Your task to perform on an android device: change the clock display to digital Image 0: 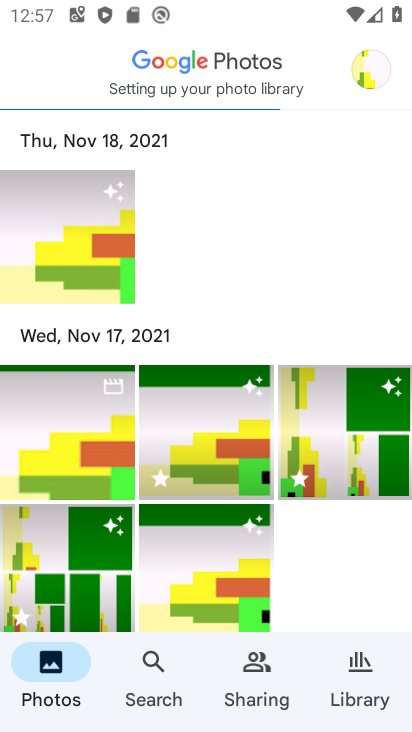
Step 0: press home button
Your task to perform on an android device: change the clock display to digital Image 1: 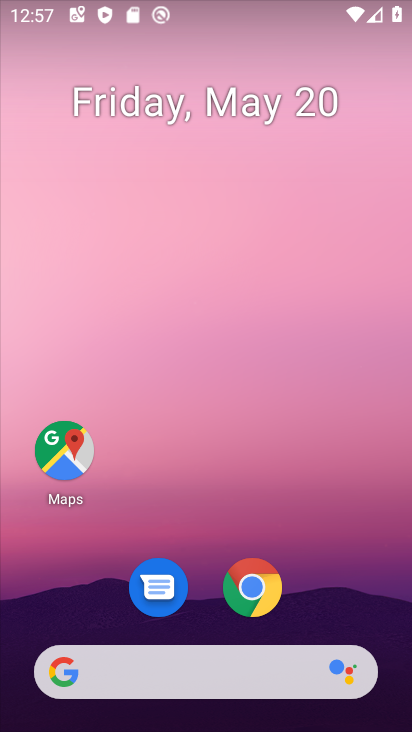
Step 1: drag from (290, 469) to (179, 27)
Your task to perform on an android device: change the clock display to digital Image 2: 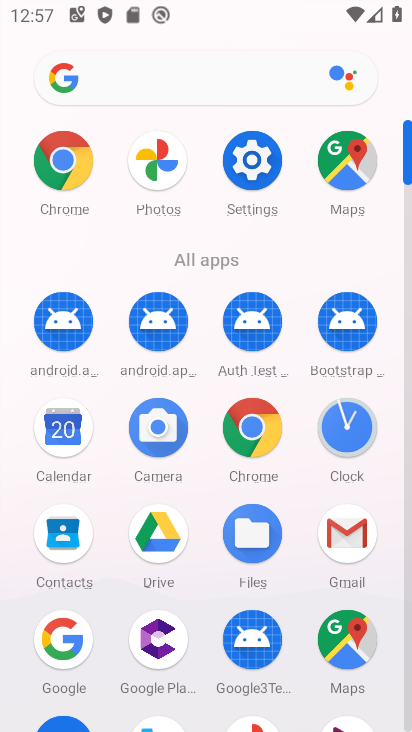
Step 2: click (341, 432)
Your task to perform on an android device: change the clock display to digital Image 3: 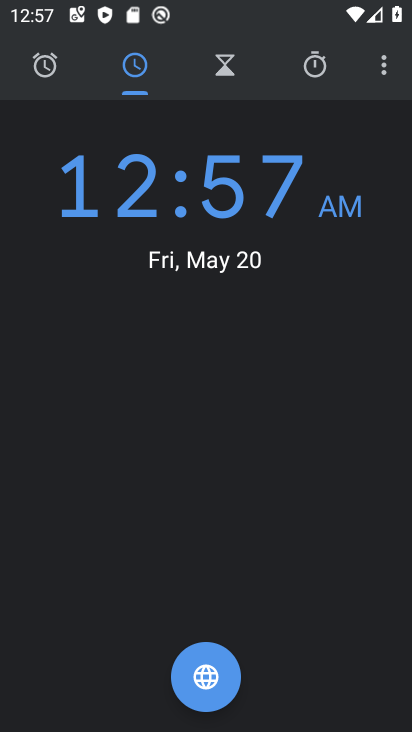
Step 3: click (386, 59)
Your task to perform on an android device: change the clock display to digital Image 4: 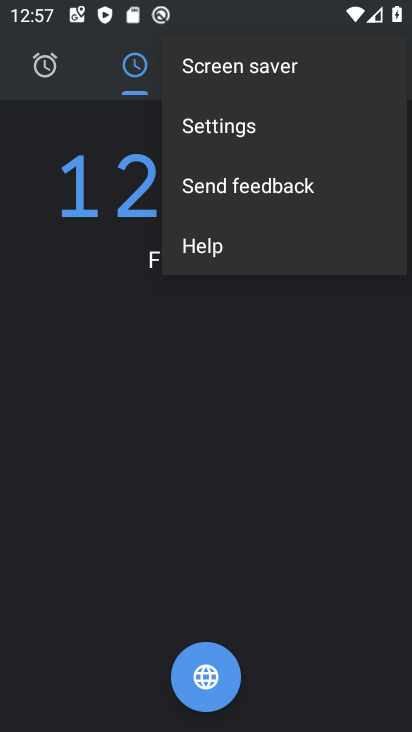
Step 4: click (244, 119)
Your task to perform on an android device: change the clock display to digital Image 5: 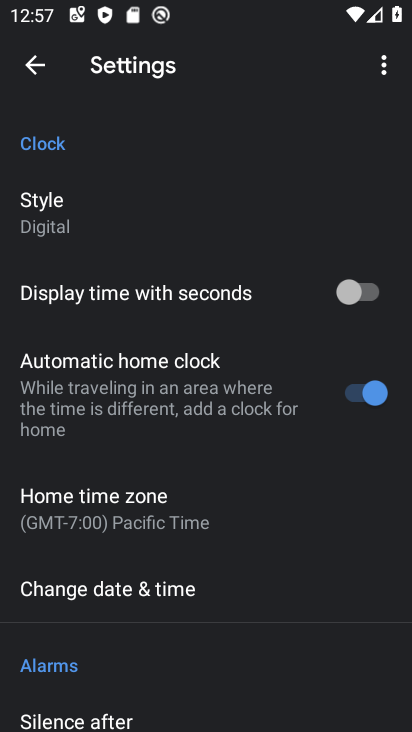
Step 5: click (30, 203)
Your task to perform on an android device: change the clock display to digital Image 6: 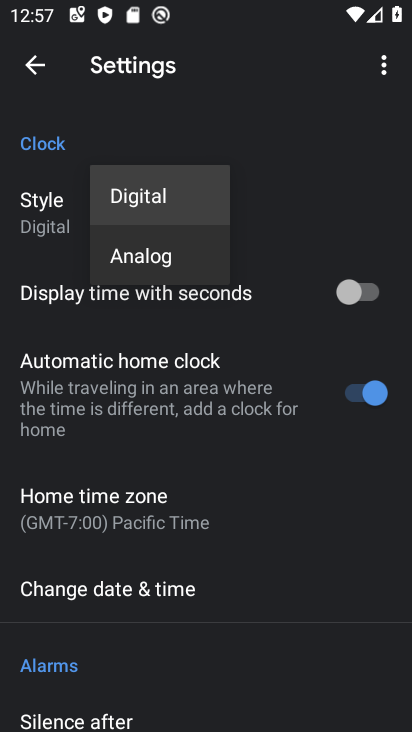
Step 6: click (152, 190)
Your task to perform on an android device: change the clock display to digital Image 7: 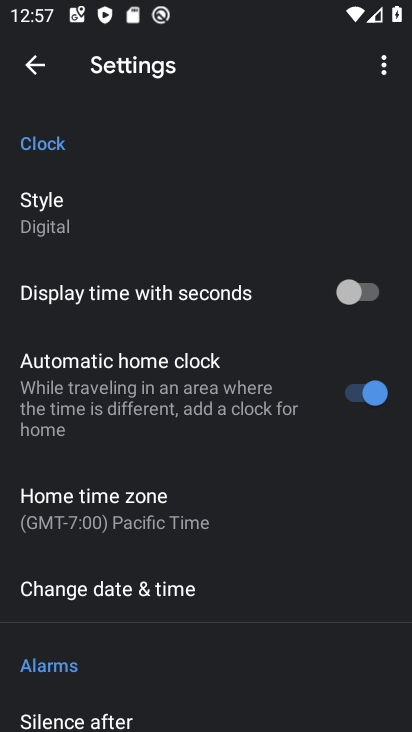
Step 7: task complete